Your task to perform on an android device: change the clock style Image 0: 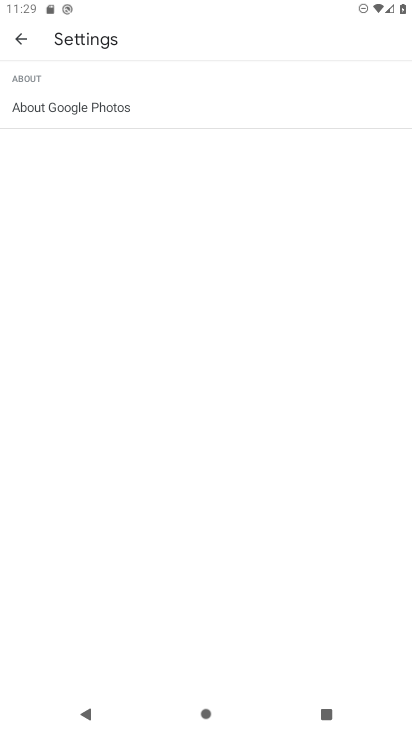
Step 0: press home button
Your task to perform on an android device: change the clock style Image 1: 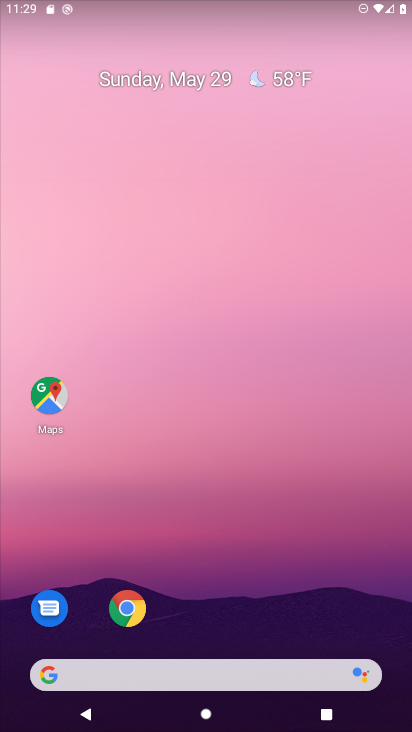
Step 1: drag from (194, 603) to (232, 171)
Your task to perform on an android device: change the clock style Image 2: 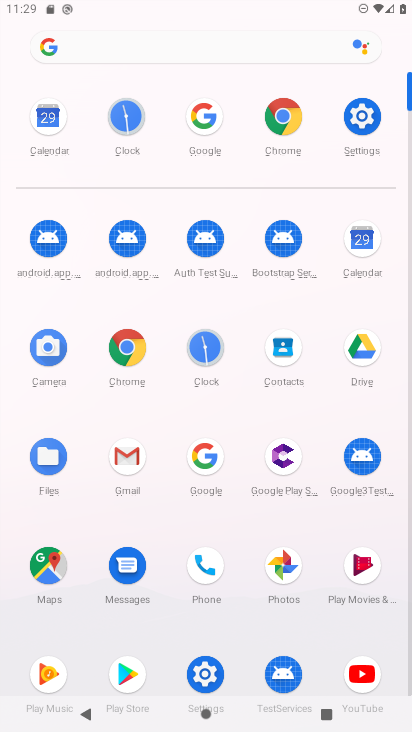
Step 2: click (206, 356)
Your task to perform on an android device: change the clock style Image 3: 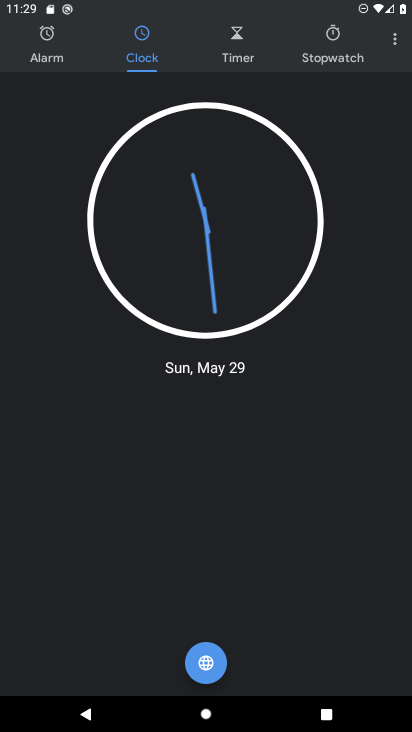
Step 3: click (403, 34)
Your task to perform on an android device: change the clock style Image 4: 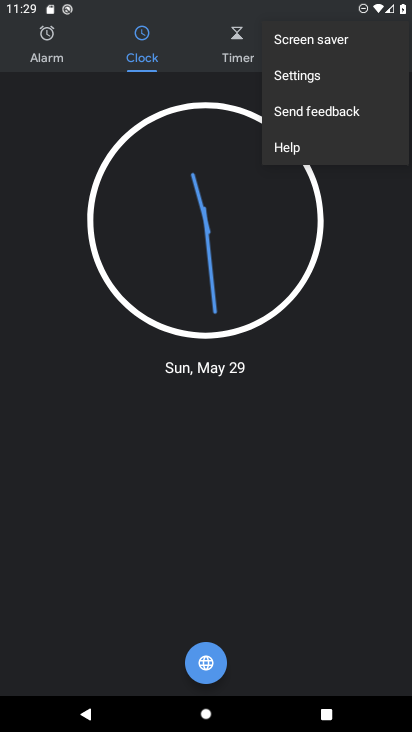
Step 4: click (299, 81)
Your task to perform on an android device: change the clock style Image 5: 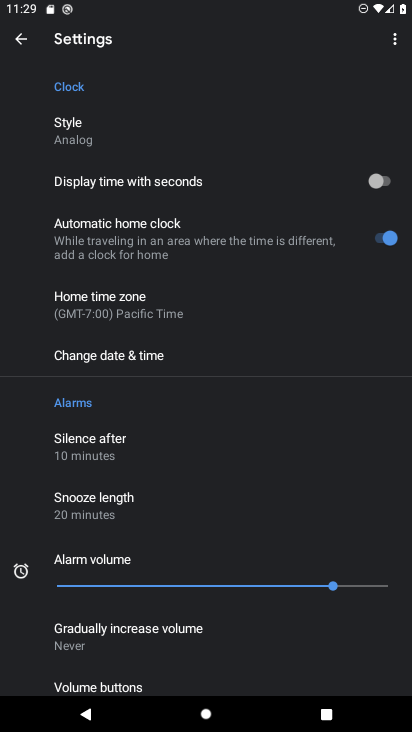
Step 5: click (97, 139)
Your task to perform on an android device: change the clock style Image 6: 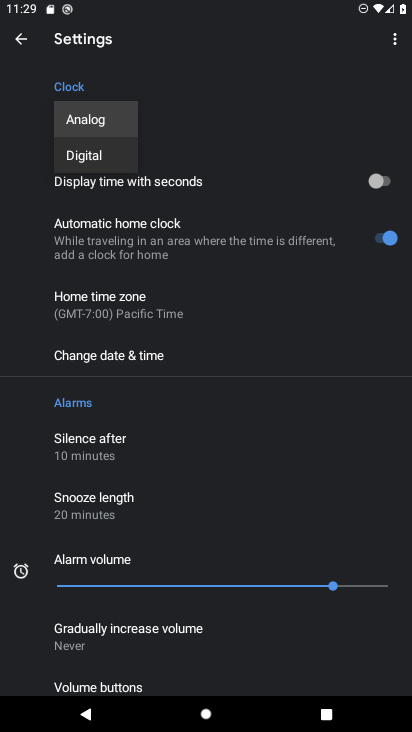
Step 6: click (108, 163)
Your task to perform on an android device: change the clock style Image 7: 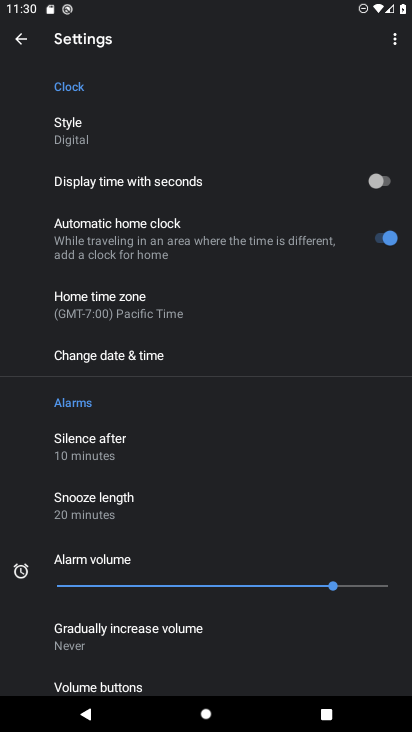
Step 7: task complete